Your task to perform on an android device: turn on the 12-hour format for clock Image 0: 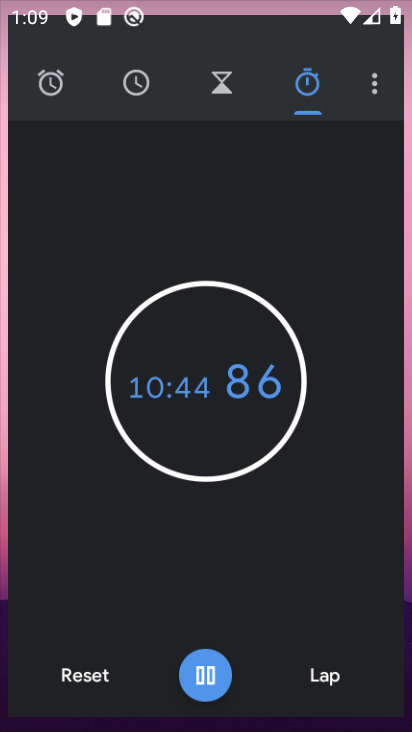
Step 0: drag from (347, 534) to (326, 190)
Your task to perform on an android device: turn on the 12-hour format for clock Image 1: 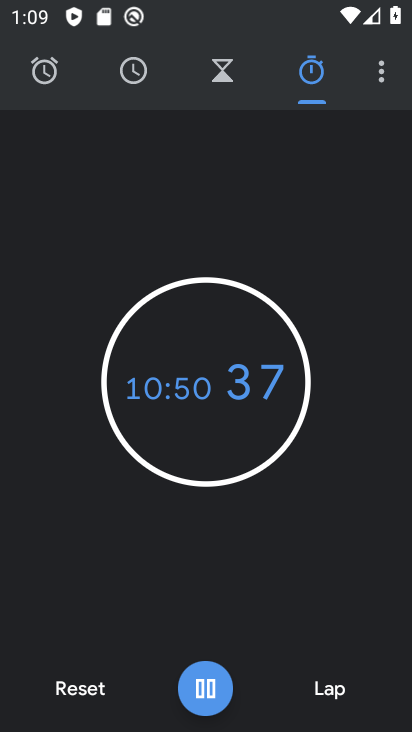
Step 1: click (383, 70)
Your task to perform on an android device: turn on the 12-hour format for clock Image 2: 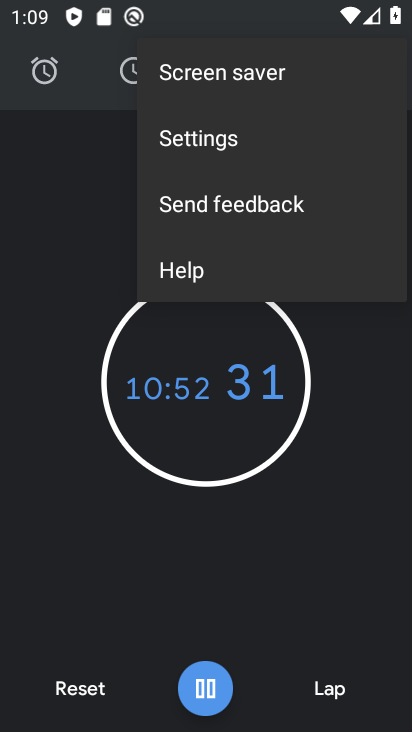
Step 2: click (247, 149)
Your task to perform on an android device: turn on the 12-hour format for clock Image 3: 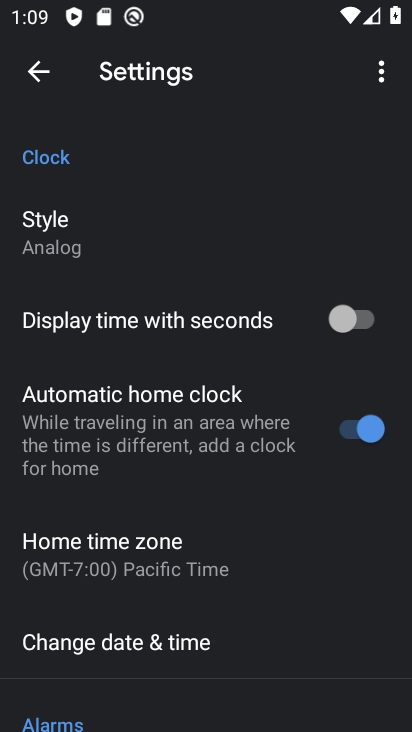
Step 3: drag from (162, 583) to (182, 225)
Your task to perform on an android device: turn on the 12-hour format for clock Image 4: 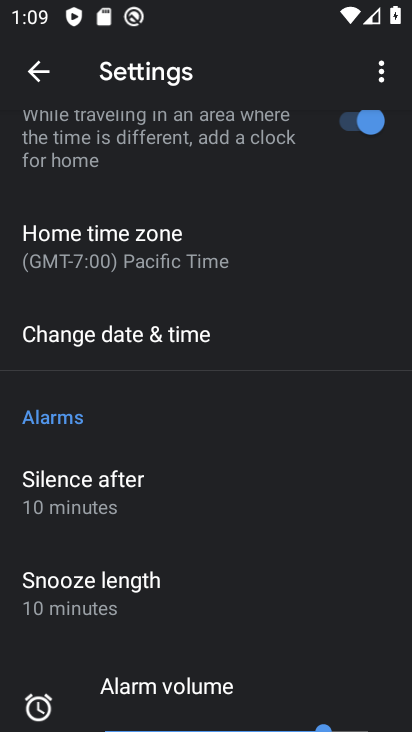
Step 4: drag from (186, 629) to (256, 220)
Your task to perform on an android device: turn on the 12-hour format for clock Image 5: 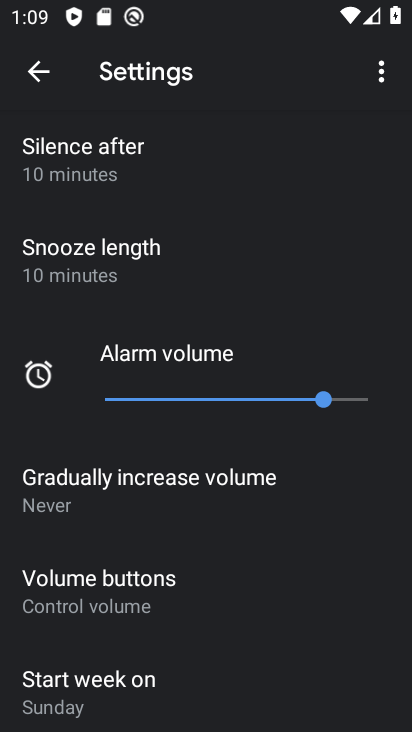
Step 5: drag from (204, 597) to (220, 223)
Your task to perform on an android device: turn on the 12-hour format for clock Image 6: 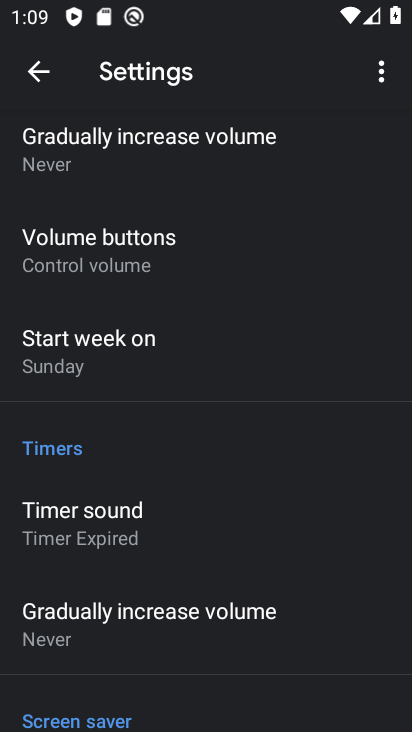
Step 6: drag from (274, 634) to (249, 299)
Your task to perform on an android device: turn on the 12-hour format for clock Image 7: 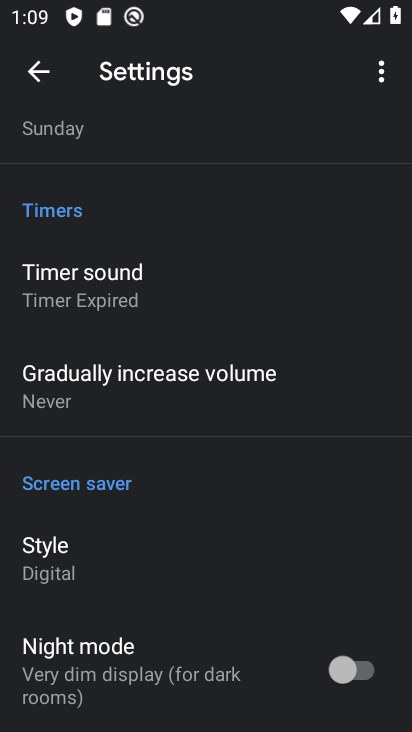
Step 7: drag from (163, 318) to (207, 644)
Your task to perform on an android device: turn on the 12-hour format for clock Image 8: 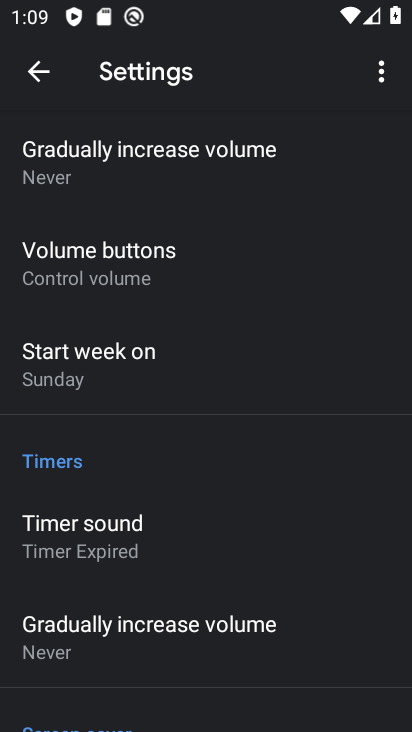
Step 8: drag from (137, 191) to (177, 532)
Your task to perform on an android device: turn on the 12-hour format for clock Image 9: 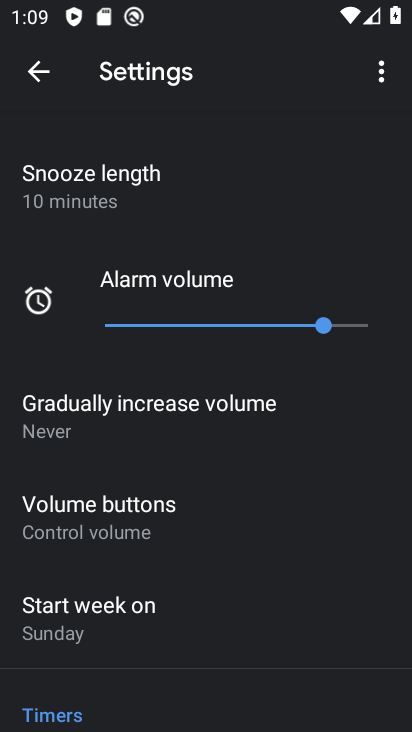
Step 9: drag from (186, 253) to (215, 538)
Your task to perform on an android device: turn on the 12-hour format for clock Image 10: 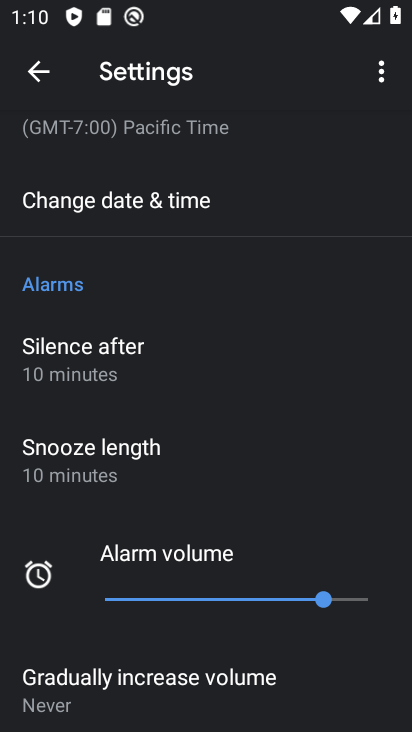
Step 10: drag from (150, 115) to (153, 313)
Your task to perform on an android device: turn on the 12-hour format for clock Image 11: 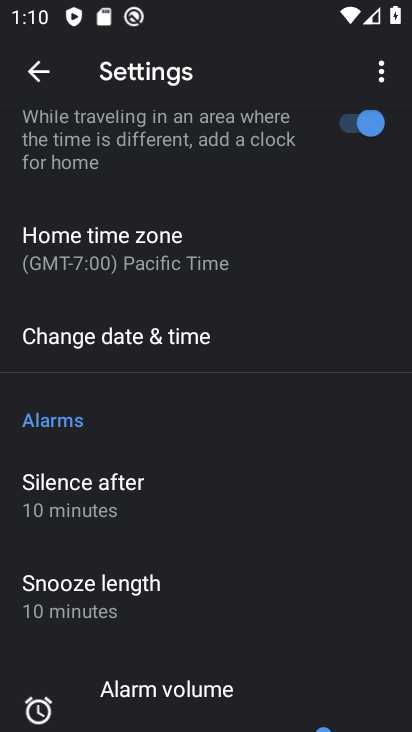
Step 11: click (148, 346)
Your task to perform on an android device: turn on the 12-hour format for clock Image 12: 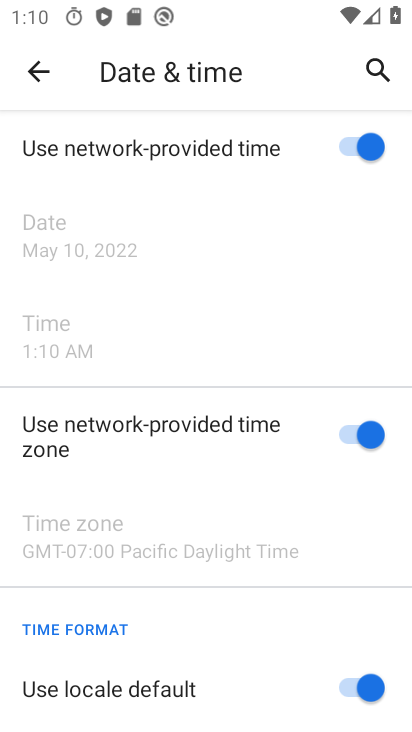
Step 12: drag from (209, 625) to (186, 187)
Your task to perform on an android device: turn on the 12-hour format for clock Image 13: 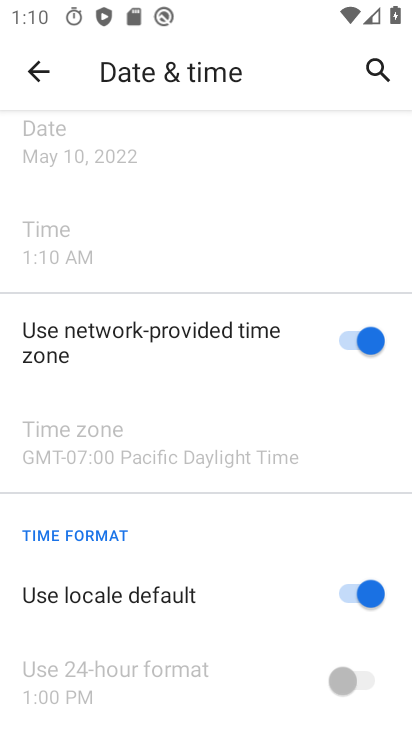
Step 13: click (352, 593)
Your task to perform on an android device: turn on the 12-hour format for clock Image 14: 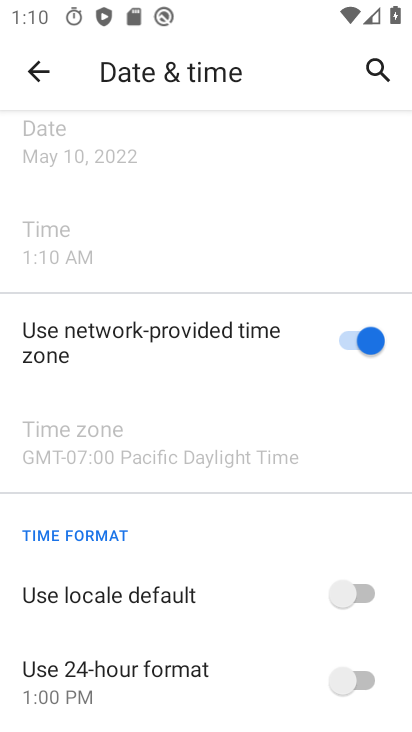
Step 14: task complete